Your task to perform on an android device: show emergency info Image 0: 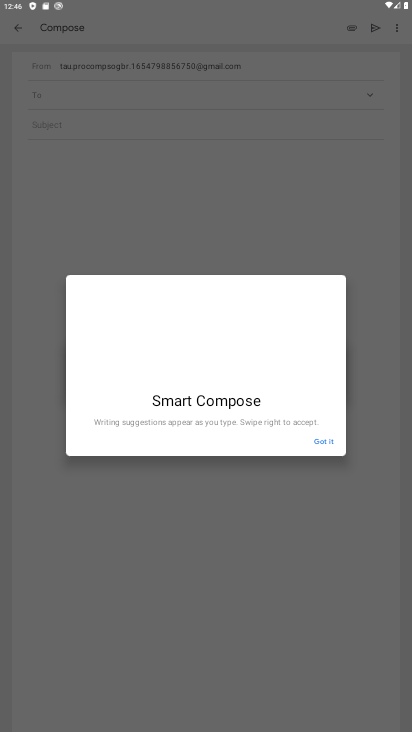
Step 0: press home button
Your task to perform on an android device: show emergency info Image 1: 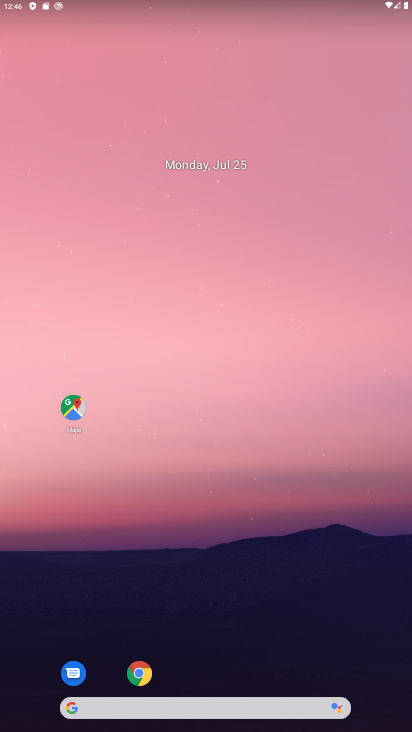
Step 1: drag from (318, 503) to (308, 201)
Your task to perform on an android device: show emergency info Image 2: 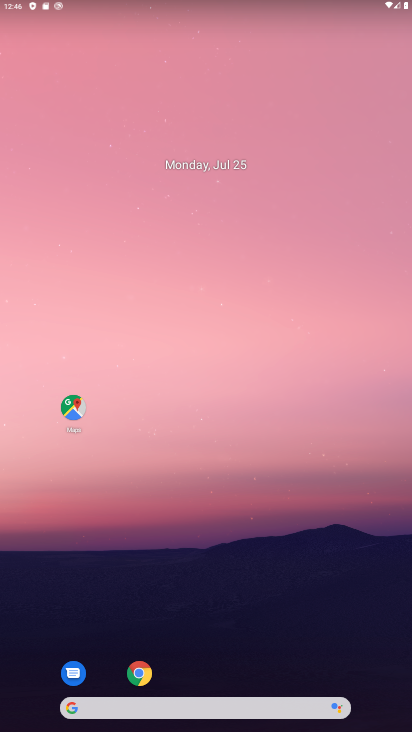
Step 2: drag from (319, 671) to (263, 200)
Your task to perform on an android device: show emergency info Image 3: 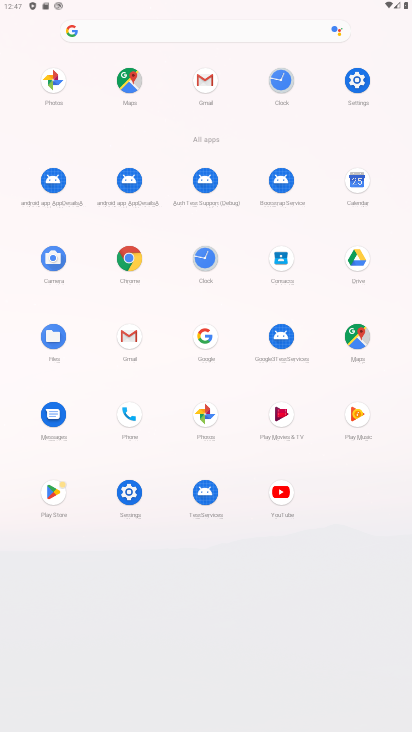
Step 3: click (129, 494)
Your task to perform on an android device: show emergency info Image 4: 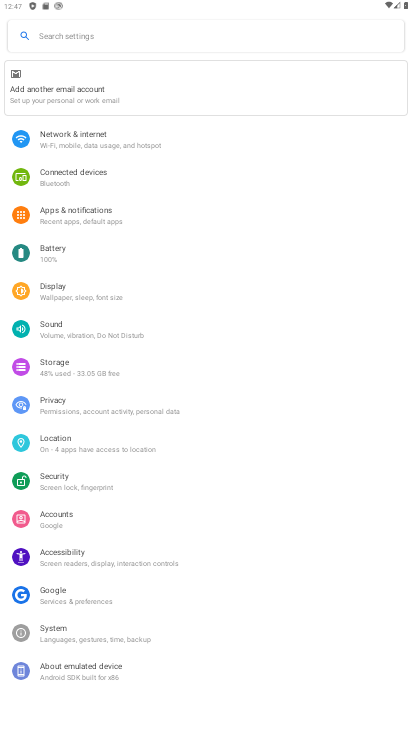
Step 4: click (81, 669)
Your task to perform on an android device: show emergency info Image 5: 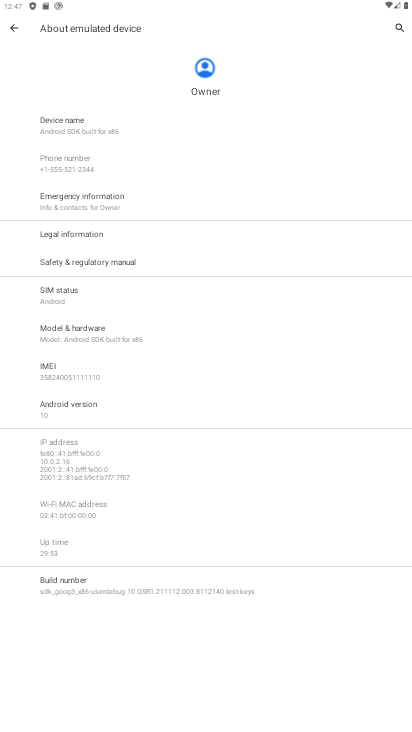
Step 5: click (86, 197)
Your task to perform on an android device: show emergency info Image 6: 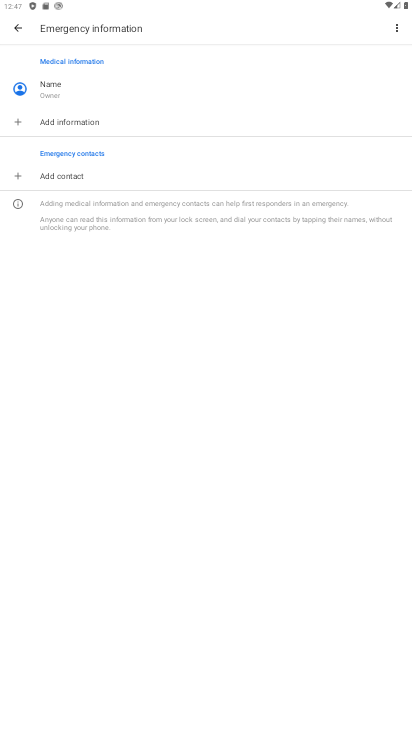
Step 6: task complete